Your task to perform on an android device: Open the Play Movies app and select the watchlist tab. Image 0: 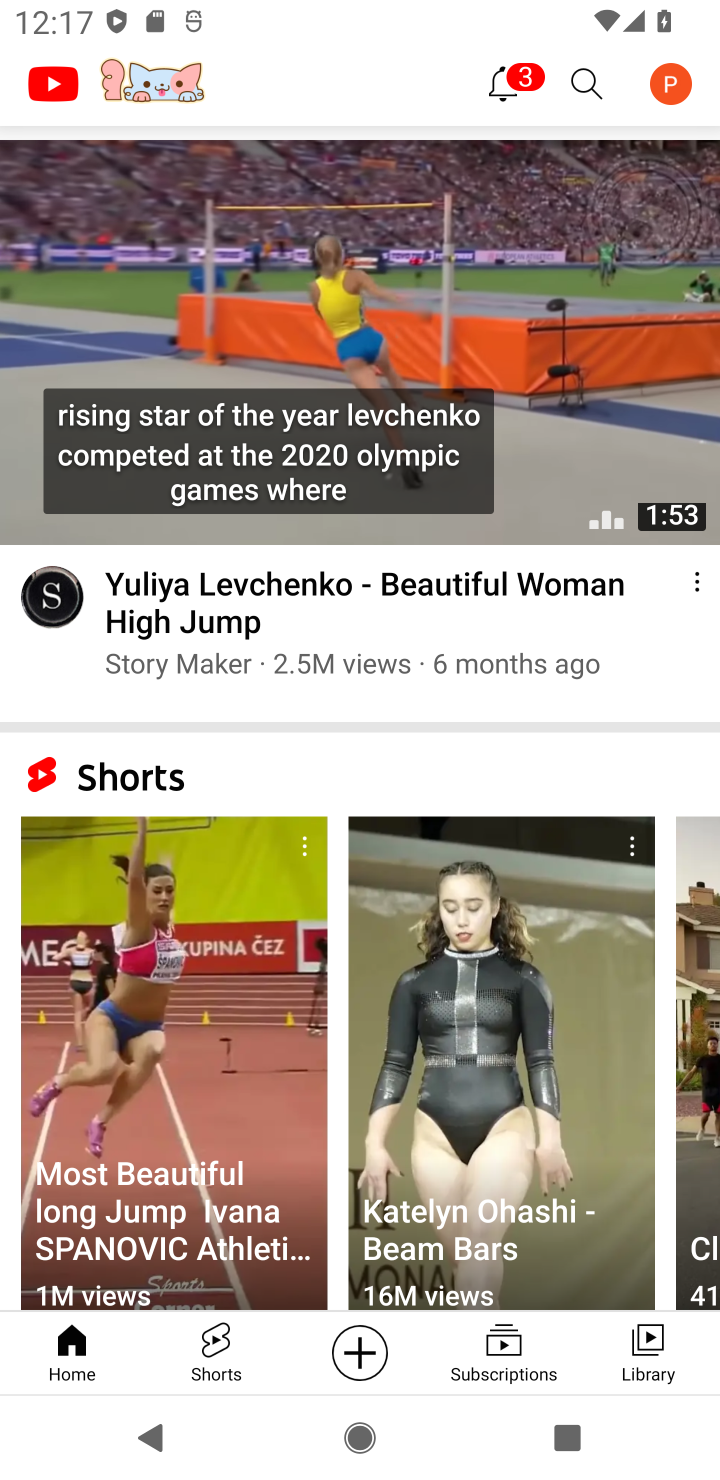
Step 0: press home button
Your task to perform on an android device: Open the Play Movies app and select the watchlist tab. Image 1: 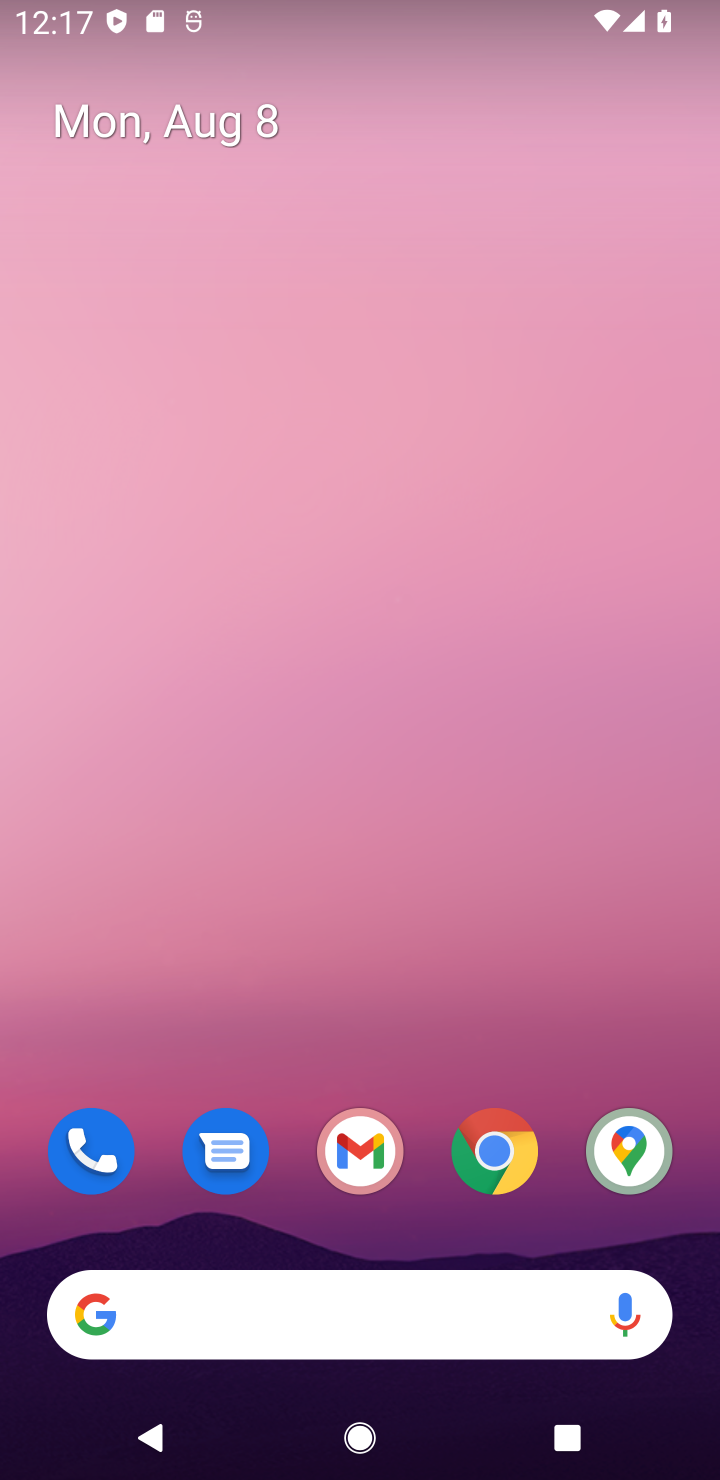
Step 1: task complete